Your task to perform on an android device: clear history in the chrome app Image 0: 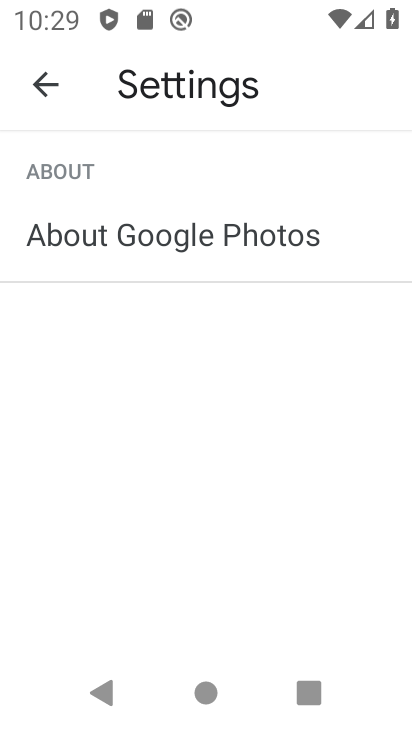
Step 0: press home button
Your task to perform on an android device: clear history in the chrome app Image 1: 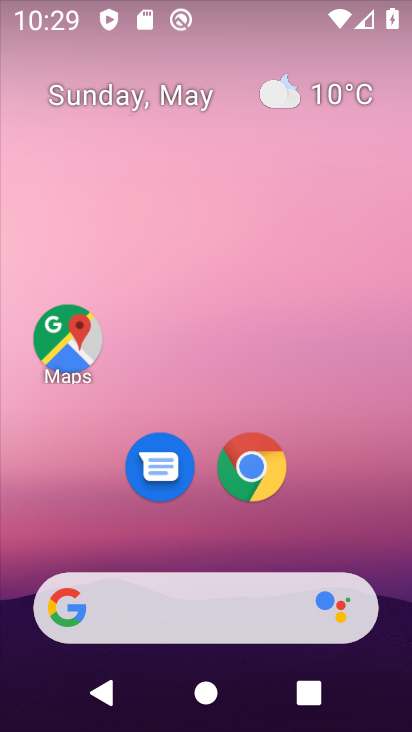
Step 1: click (249, 441)
Your task to perform on an android device: clear history in the chrome app Image 2: 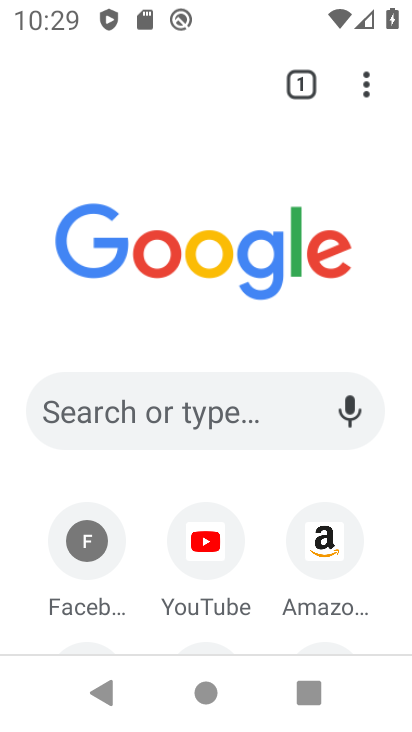
Step 2: click (378, 82)
Your task to perform on an android device: clear history in the chrome app Image 3: 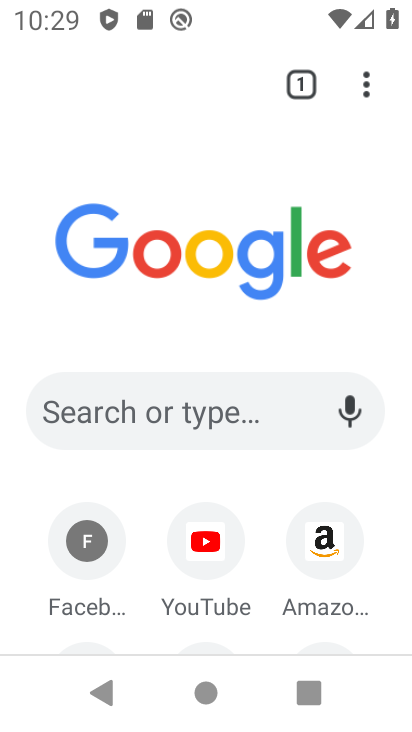
Step 3: click (371, 79)
Your task to perform on an android device: clear history in the chrome app Image 4: 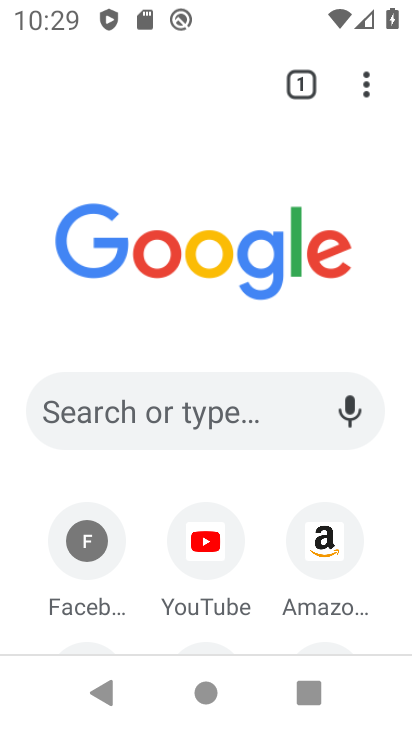
Step 4: click (358, 68)
Your task to perform on an android device: clear history in the chrome app Image 5: 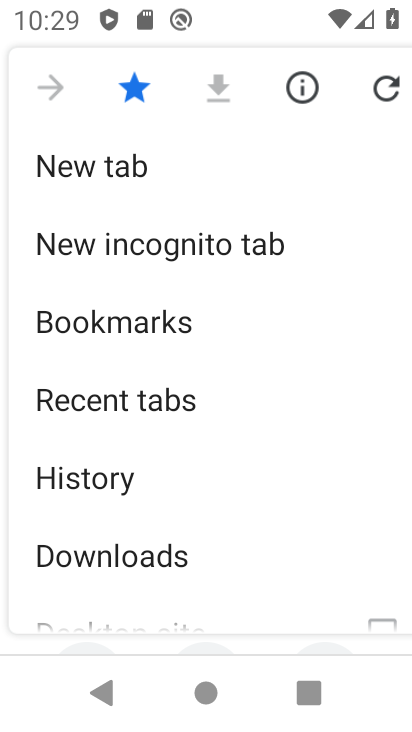
Step 5: drag from (173, 522) to (217, 102)
Your task to perform on an android device: clear history in the chrome app Image 6: 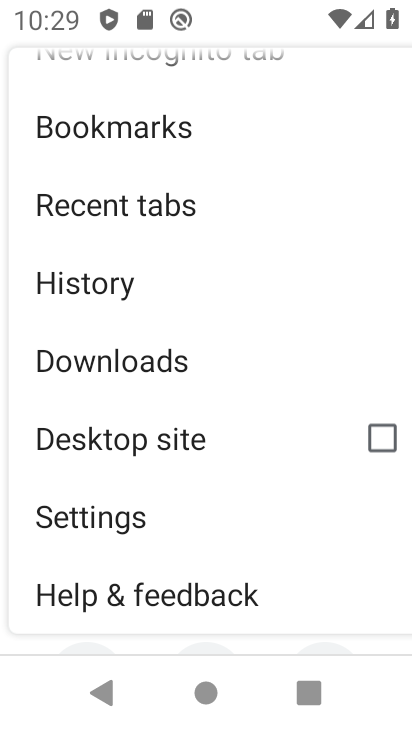
Step 6: click (195, 503)
Your task to perform on an android device: clear history in the chrome app Image 7: 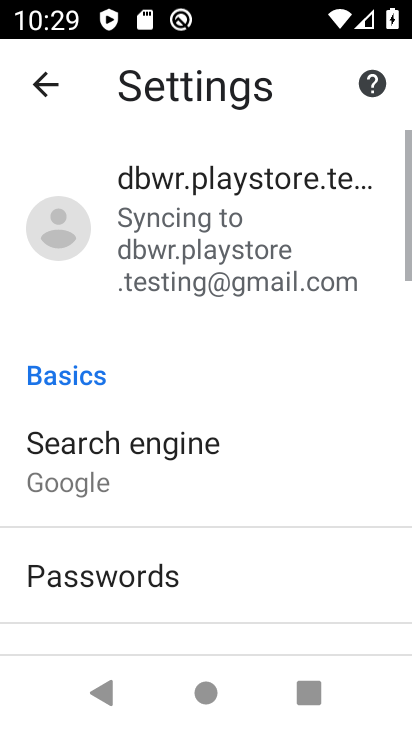
Step 7: drag from (195, 503) to (224, 116)
Your task to perform on an android device: clear history in the chrome app Image 8: 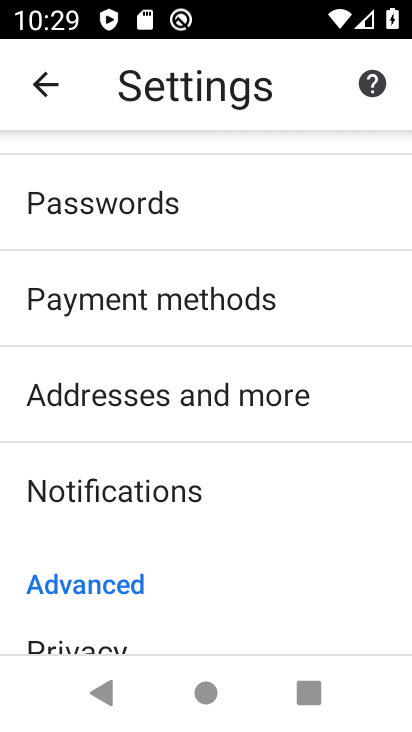
Step 8: drag from (242, 573) to (241, 166)
Your task to perform on an android device: clear history in the chrome app Image 9: 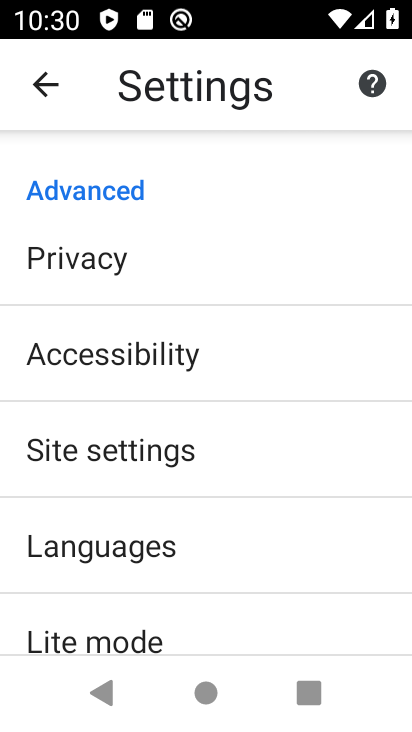
Step 9: click (229, 256)
Your task to perform on an android device: clear history in the chrome app Image 10: 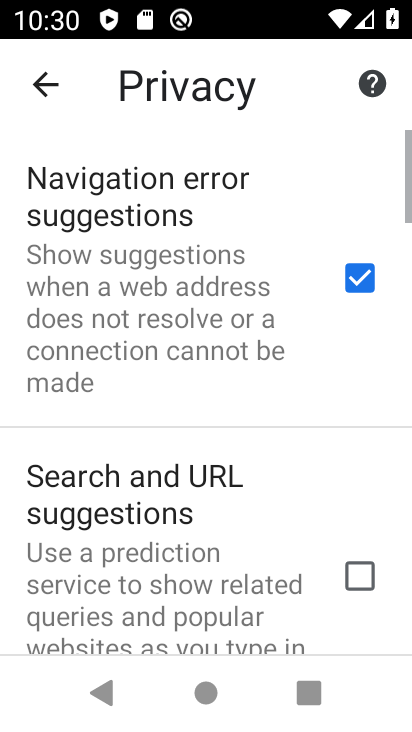
Step 10: drag from (269, 560) to (250, 129)
Your task to perform on an android device: clear history in the chrome app Image 11: 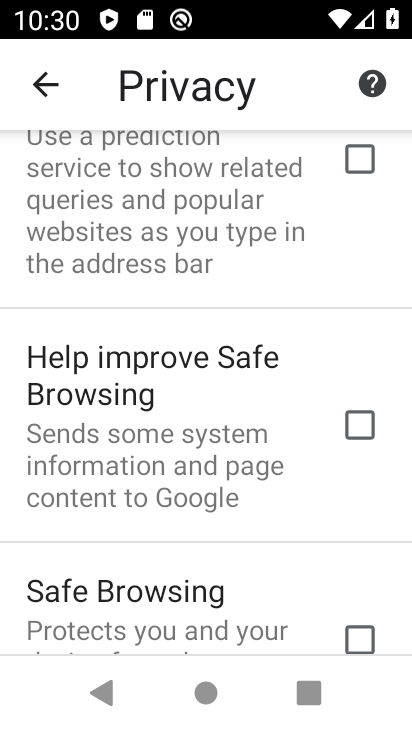
Step 11: drag from (310, 553) to (220, 149)
Your task to perform on an android device: clear history in the chrome app Image 12: 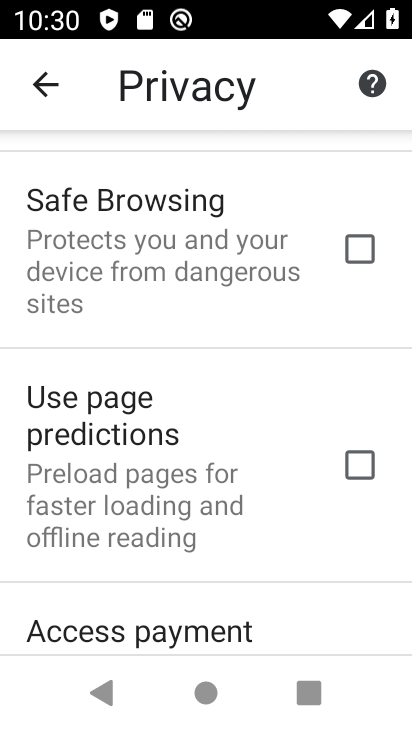
Step 12: drag from (235, 558) to (194, 102)
Your task to perform on an android device: clear history in the chrome app Image 13: 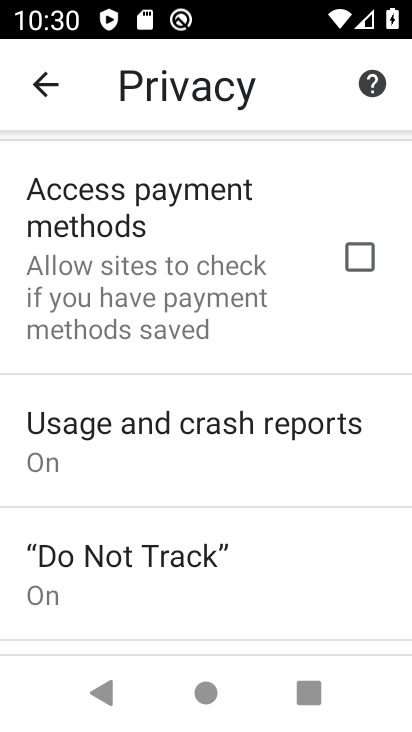
Step 13: drag from (293, 571) to (278, 166)
Your task to perform on an android device: clear history in the chrome app Image 14: 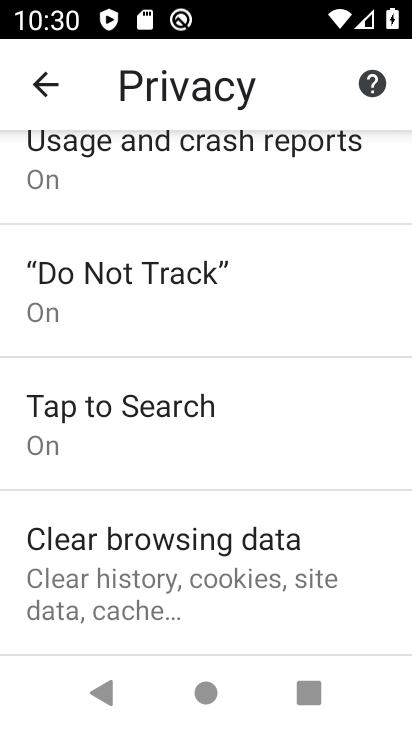
Step 14: click (345, 543)
Your task to perform on an android device: clear history in the chrome app Image 15: 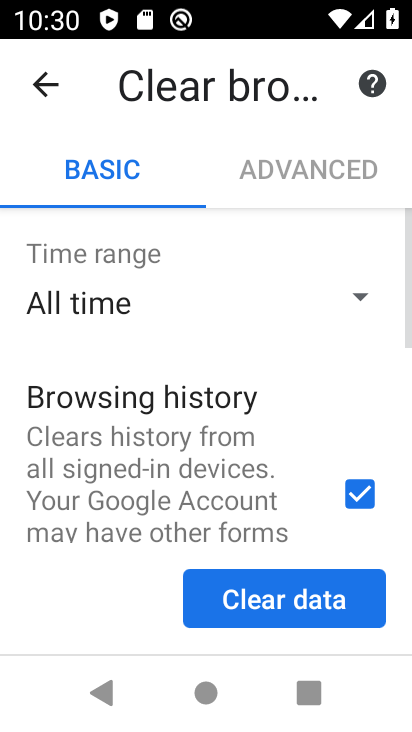
Step 15: click (247, 597)
Your task to perform on an android device: clear history in the chrome app Image 16: 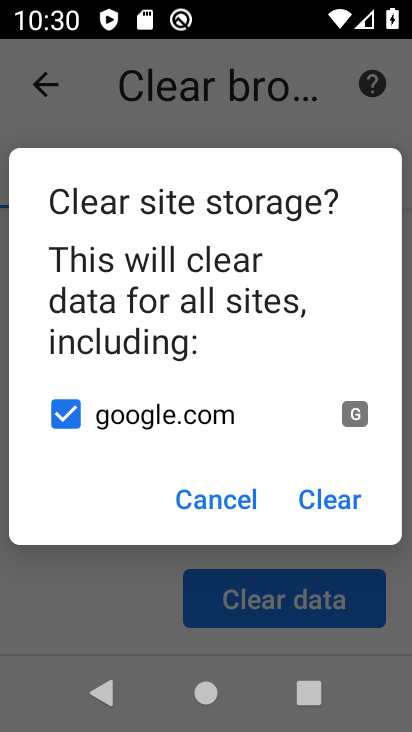
Step 16: click (356, 502)
Your task to perform on an android device: clear history in the chrome app Image 17: 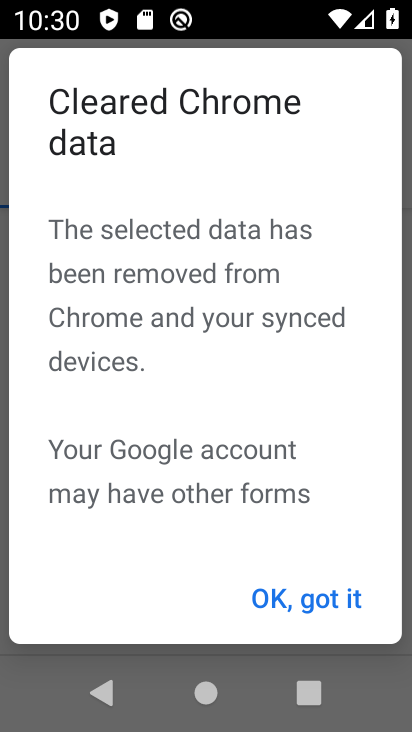
Step 17: click (333, 591)
Your task to perform on an android device: clear history in the chrome app Image 18: 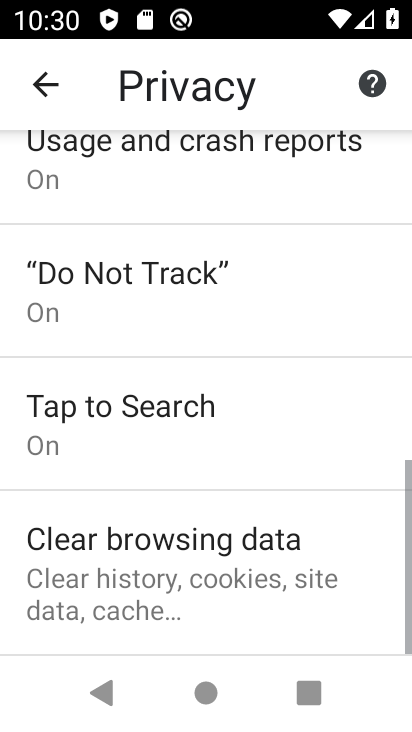
Step 18: task complete